Your task to perform on an android device: Find coffee shops on Maps Image 0: 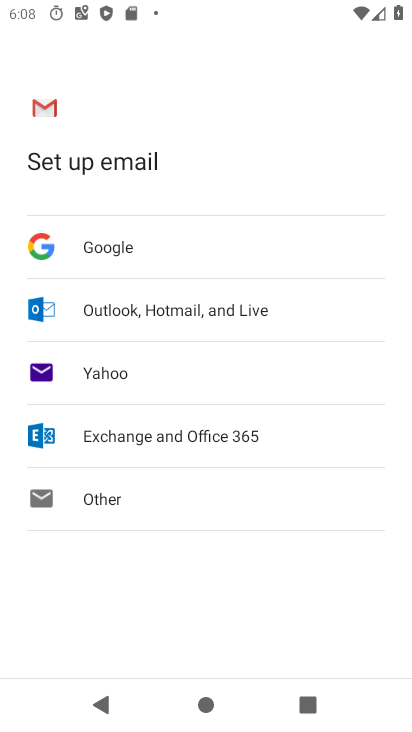
Step 0: press home button
Your task to perform on an android device: Find coffee shops on Maps Image 1: 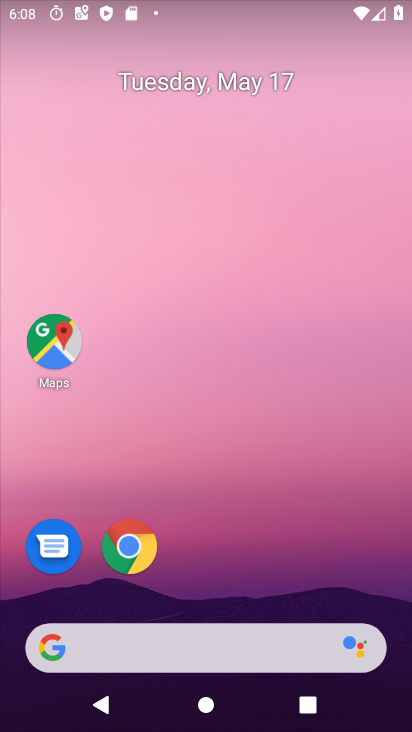
Step 1: click (227, 196)
Your task to perform on an android device: Find coffee shops on Maps Image 2: 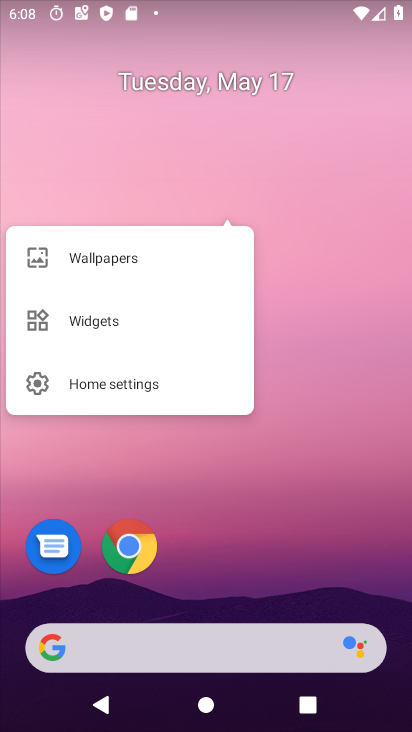
Step 2: click (121, 448)
Your task to perform on an android device: Find coffee shops on Maps Image 3: 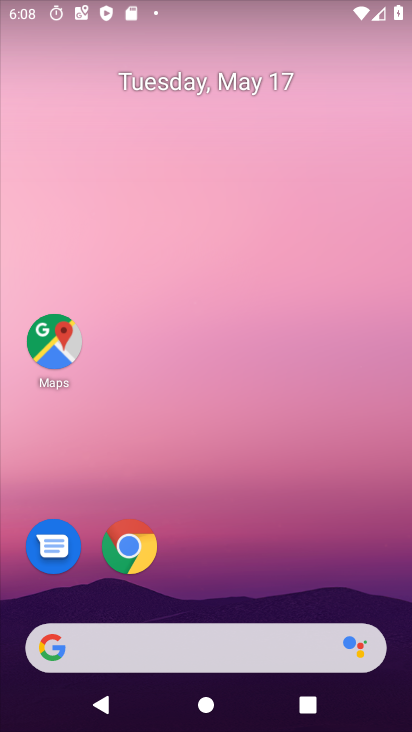
Step 3: click (54, 362)
Your task to perform on an android device: Find coffee shops on Maps Image 4: 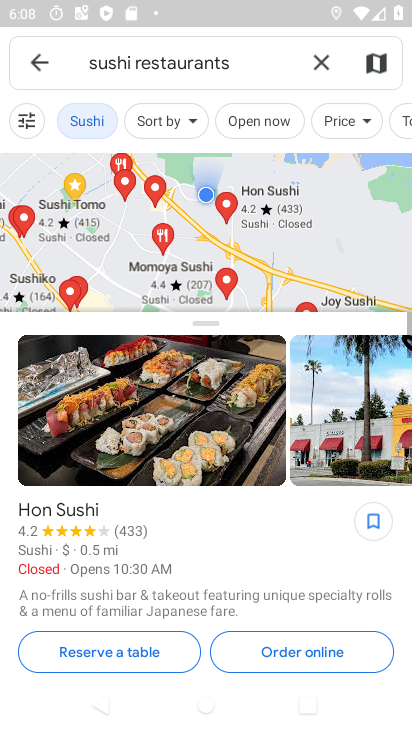
Step 4: click (330, 57)
Your task to perform on an android device: Find coffee shops on Maps Image 5: 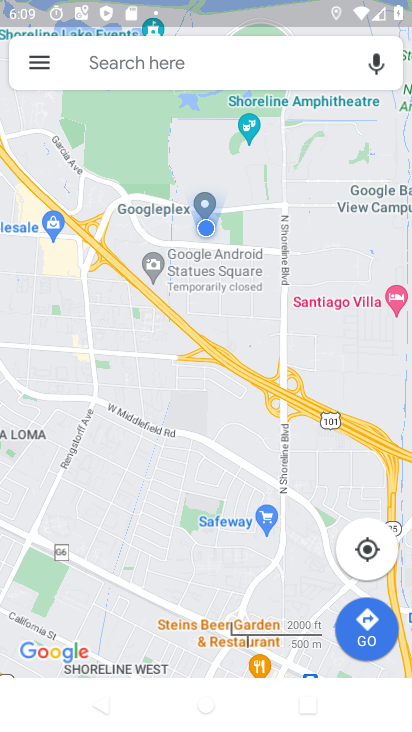
Step 5: click (160, 52)
Your task to perform on an android device: Find coffee shops on Maps Image 6: 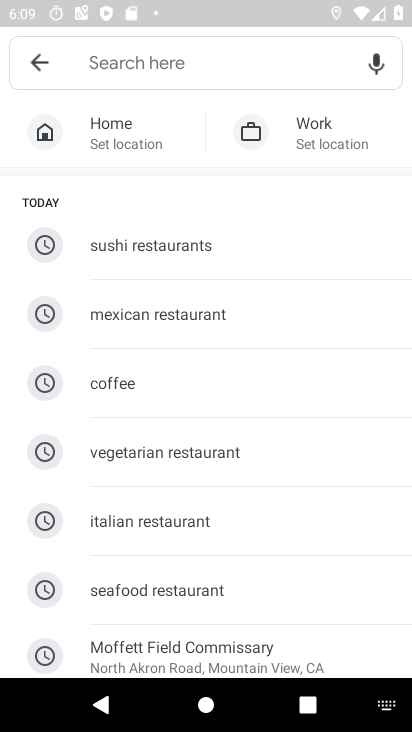
Step 6: type "coffee shops"
Your task to perform on an android device: Find coffee shops on Maps Image 7: 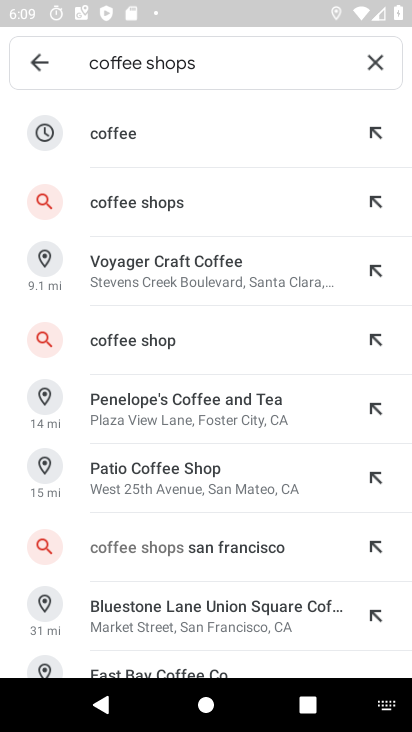
Step 7: click (192, 204)
Your task to perform on an android device: Find coffee shops on Maps Image 8: 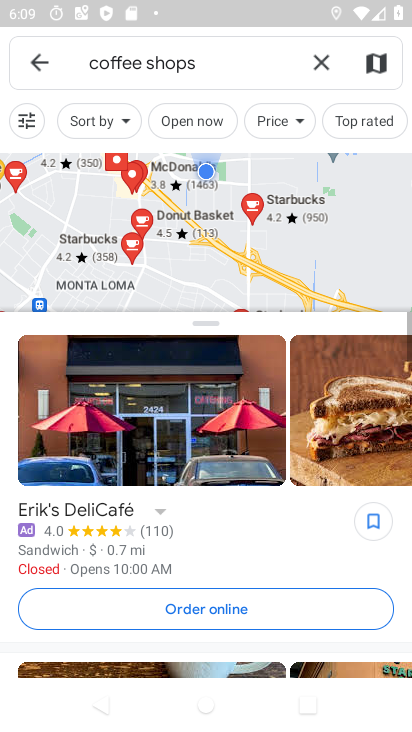
Step 8: task complete